Your task to perform on an android device: Go to location settings Image 0: 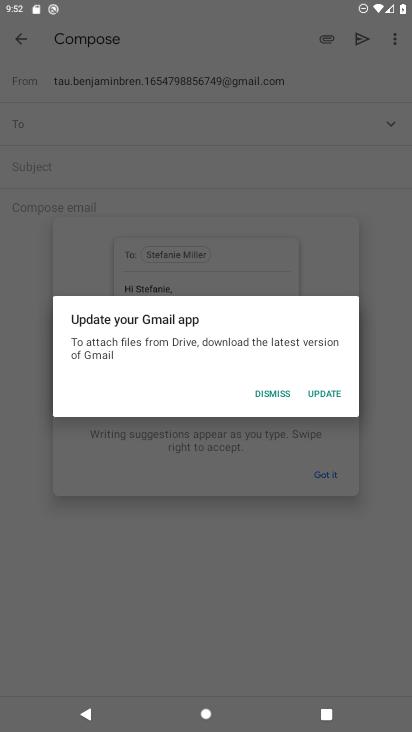
Step 0: press home button
Your task to perform on an android device: Go to location settings Image 1: 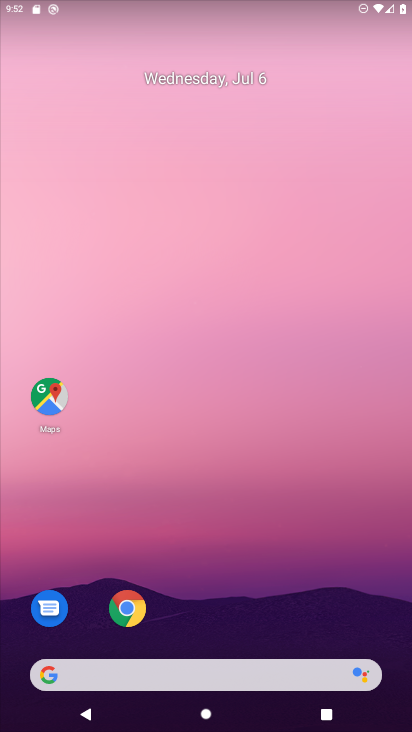
Step 1: click (52, 405)
Your task to perform on an android device: Go to location settings Image 2: 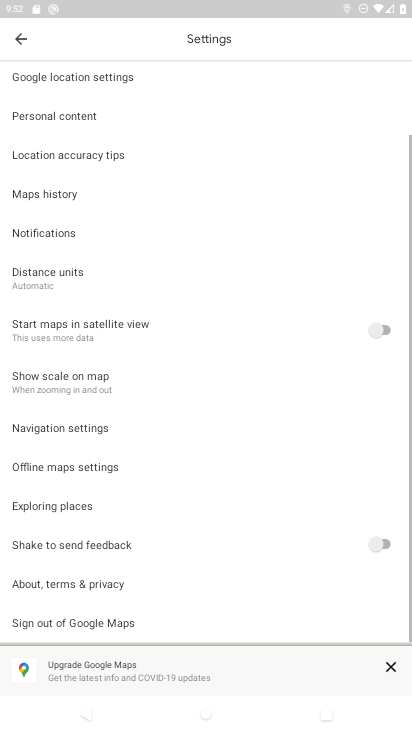
Step 2: click (22, 35)
Your task to perform on an android device: Go to location settings Image 3: 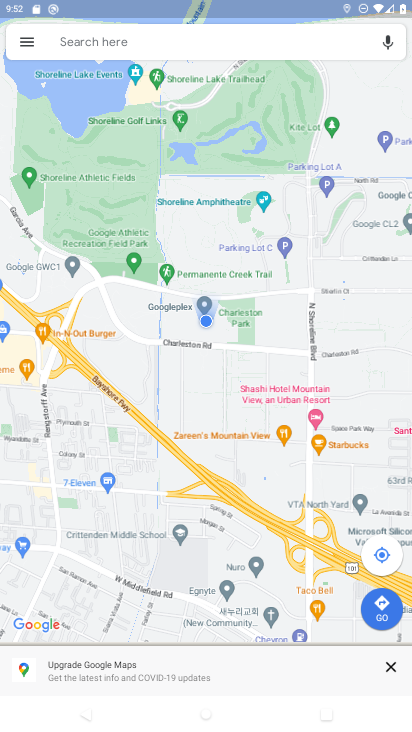
Step 3: click (25, 34)
Your task to perform on an android device: Go to location settings Image 4: 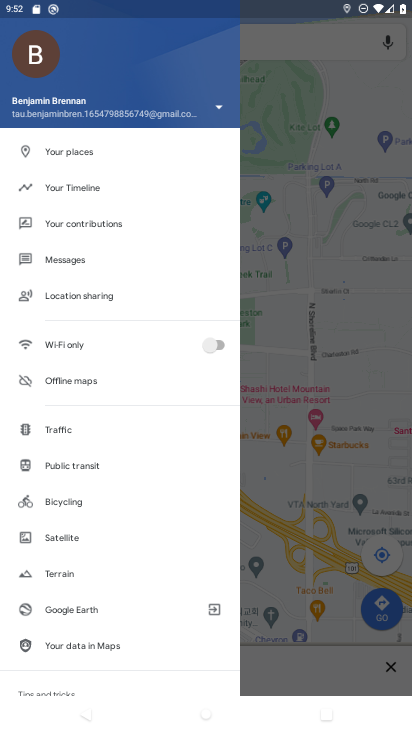
Step 4: drag from (71, 655) to (78, 206)
Your task to perform on an android device: Go to location settings Image 5: 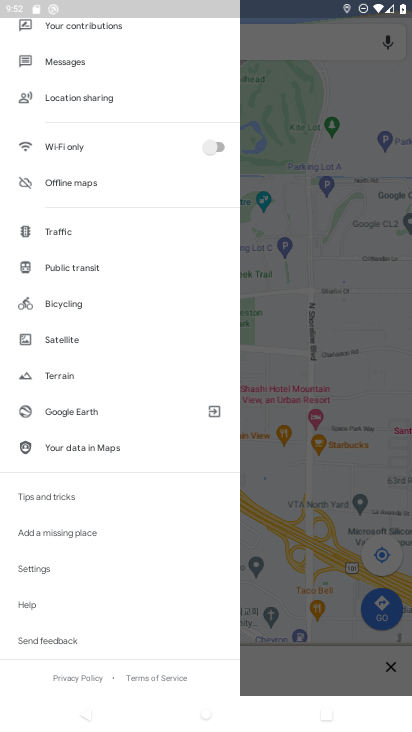
Step 5: click (28, 568)
Your task to perform on an android device: Go to location settings Image 6: 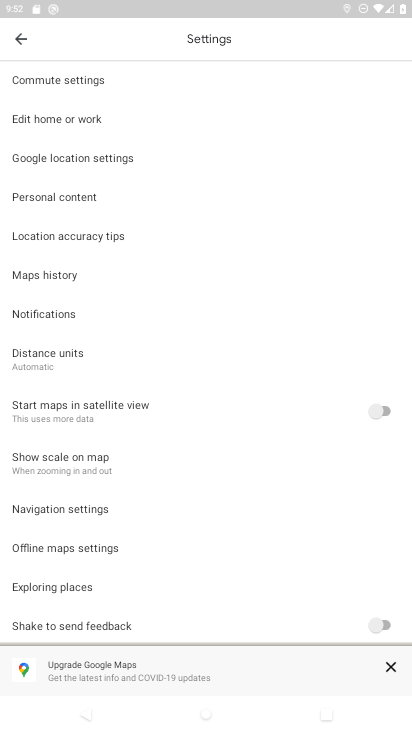
Step 6: task complete